Your task to perform on an android device: choose inbox layout in the gmail app Image 0: 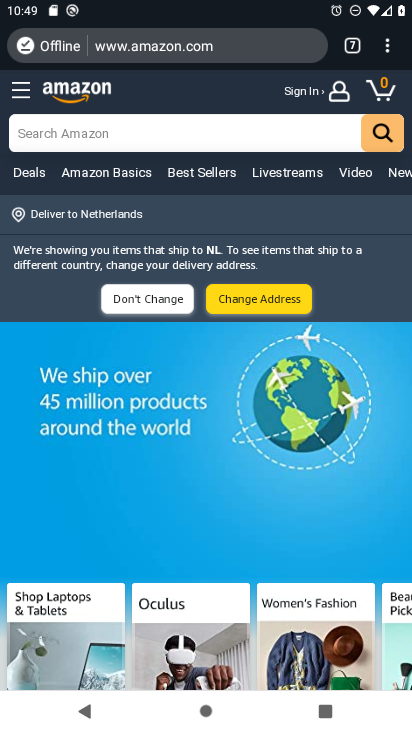
Step 0: press home button
Your task to perform on an android device: choose inbox layout in the gmail app Image 1: 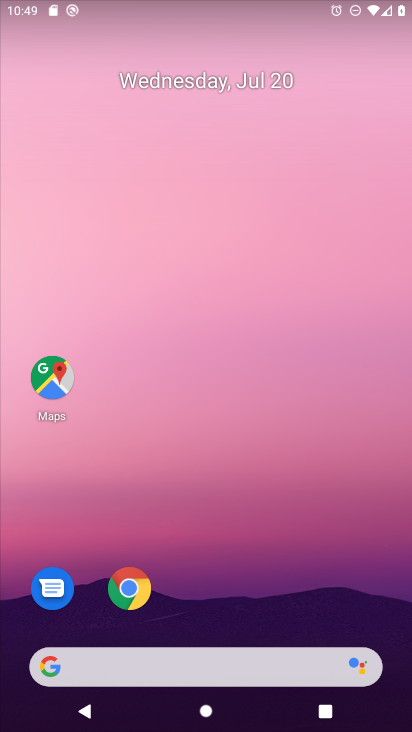
Step 1: drag from (219, 629) to (212, 49)
Your task to perform on an android device: choose inbox layout in the gmail app Image 2: 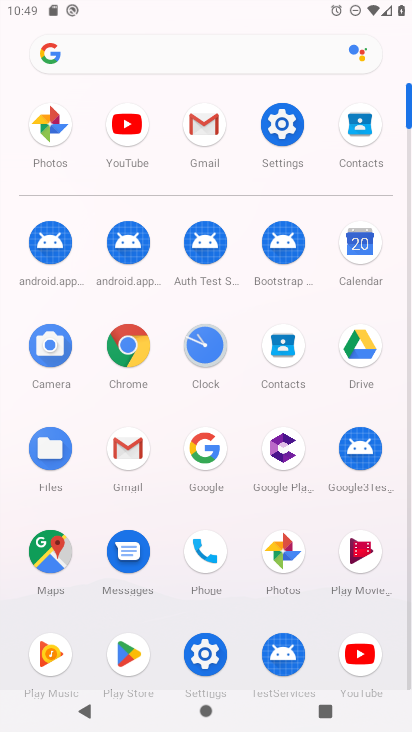
Step 2: click (197, 128)
Your task to perform on an android device: choose inbox layout in the gmail app Image 3: 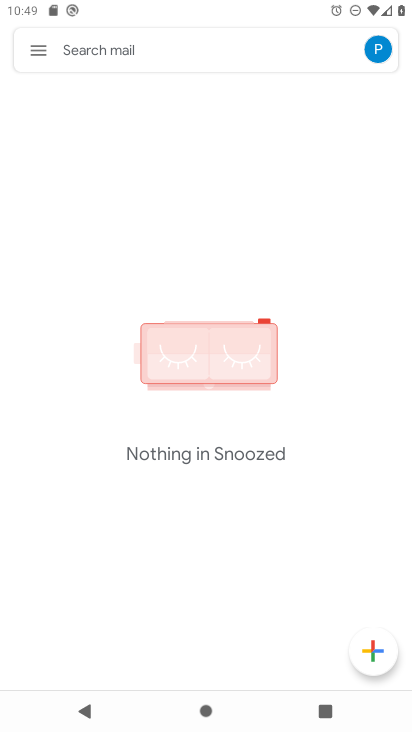
Step 3: click (28, 55)
Your task to perform on an android device: choose inbox layout in the gmail app Image 4: 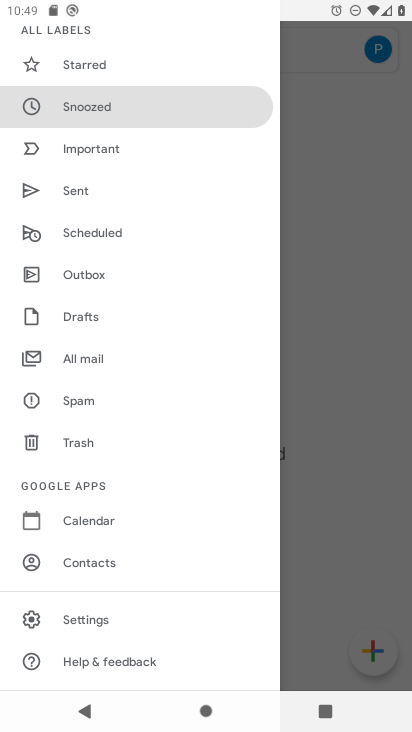
Step 4: click (106, 620)
Your task to perform on an android device: choose inbox layout in the gmail app Image 5: 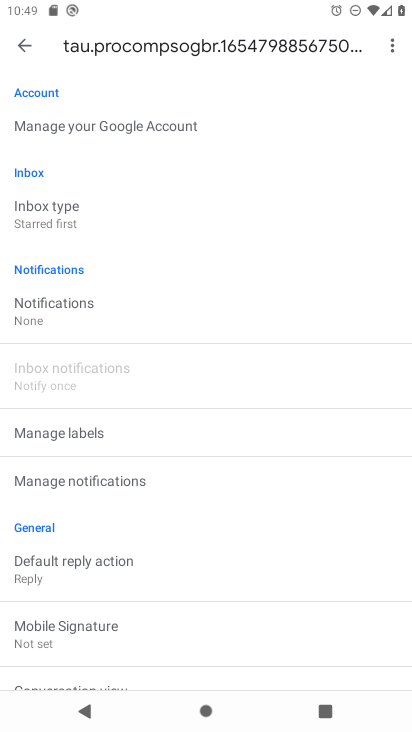
Step 5: click (61, 226)
Your task to perform on an android device: choose inbox layout in the gmail app Image 6: 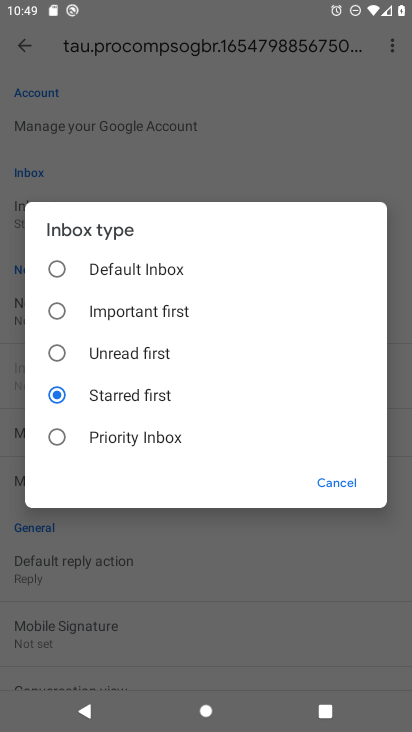
Step 6: click (131, 359)
Your task to perform on an android device: choose inbox layout in the gmail app Image 7: 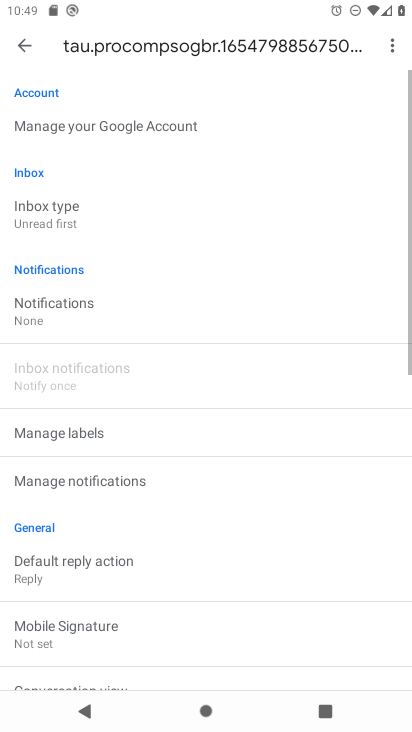
Step 7: task complete